Your task to perform on an android device: open app "Yahoo Mail" Image 0: 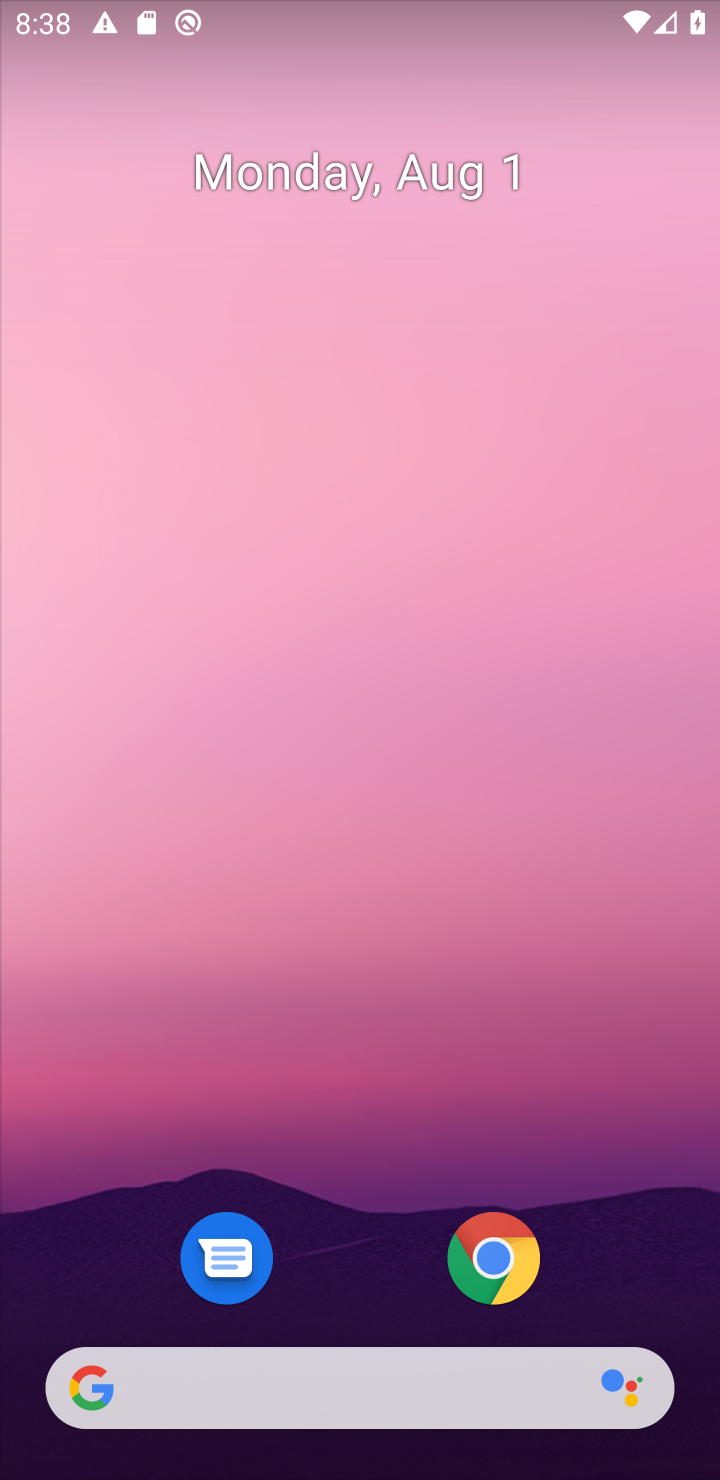
Step 0: drag from (356, 1204) to (533, 57)
Your task to perform on an android device: open app "Yahoo Mail" Image 1: 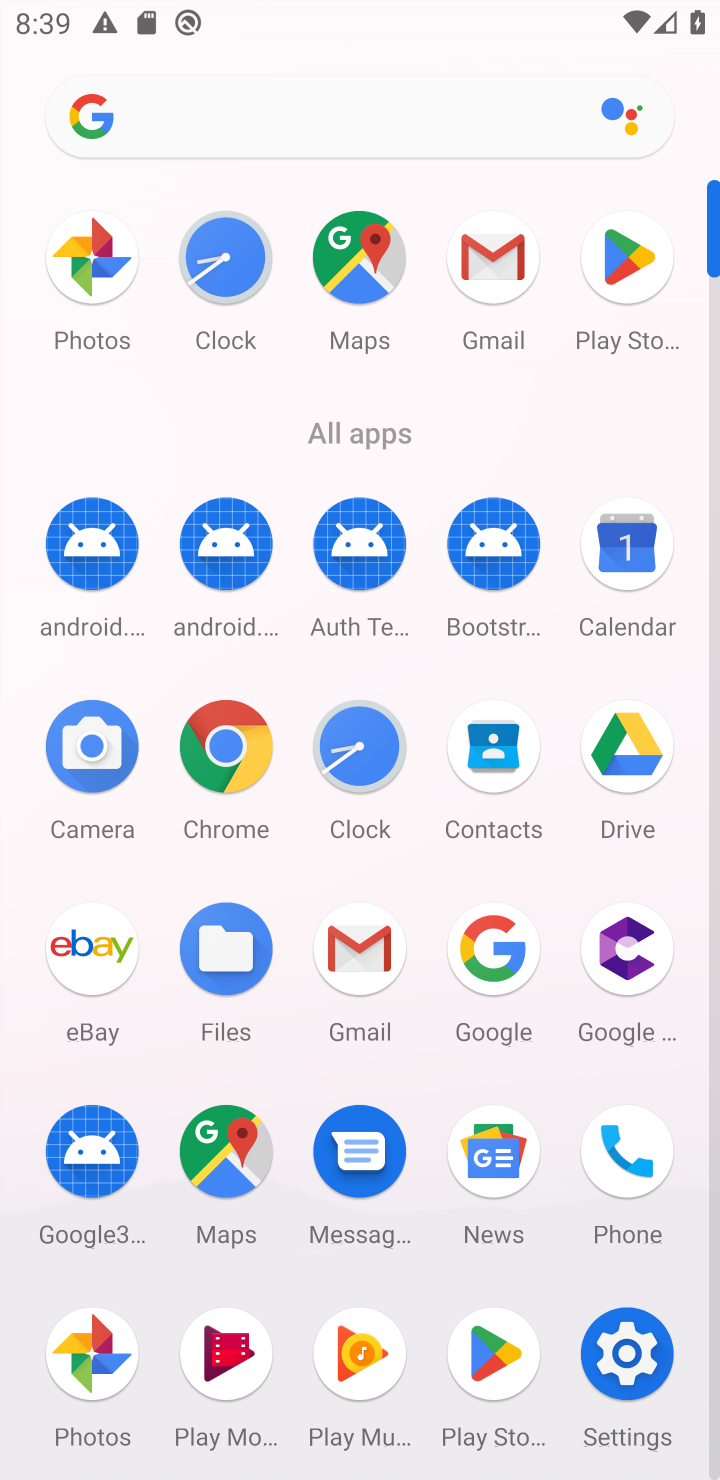
Step 1: click (477, 1348)
Your task to perform on an android device: open app "Yahoo Mail" Image 2: 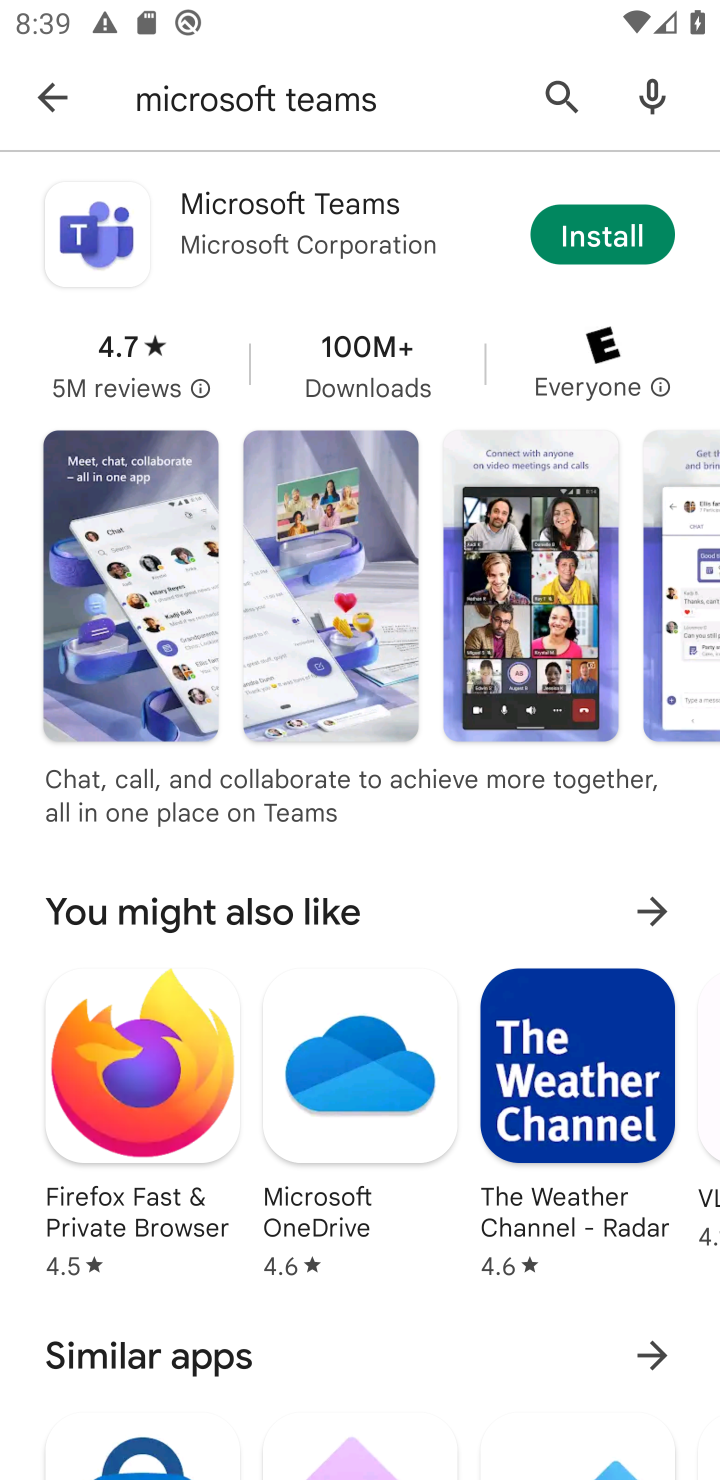
Step 2: click (41, 93)
Your task to perform on an android device: open app "Yahoo Mail" Image 3: 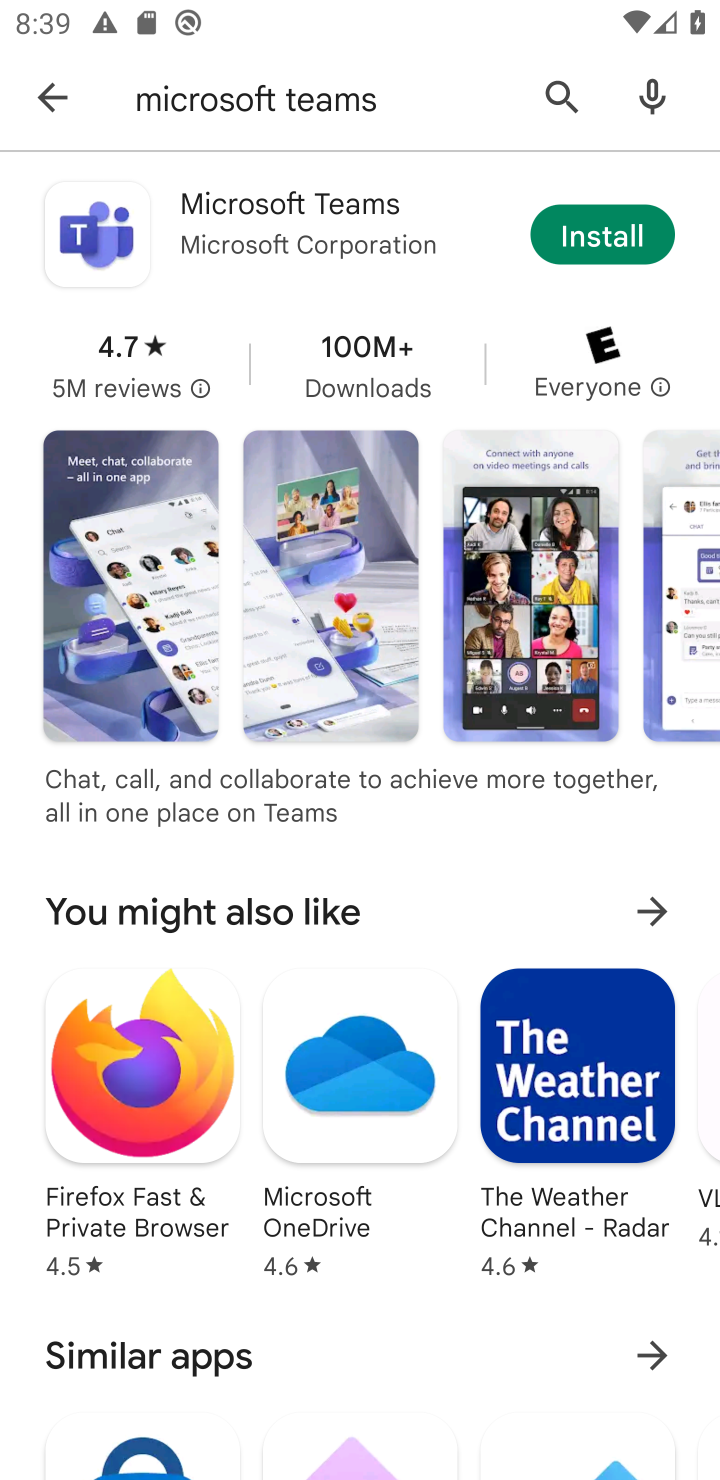
Step 3: click (556, 92)
Your task to perform on an android device: open app "Yahoo Mail" Image 4: 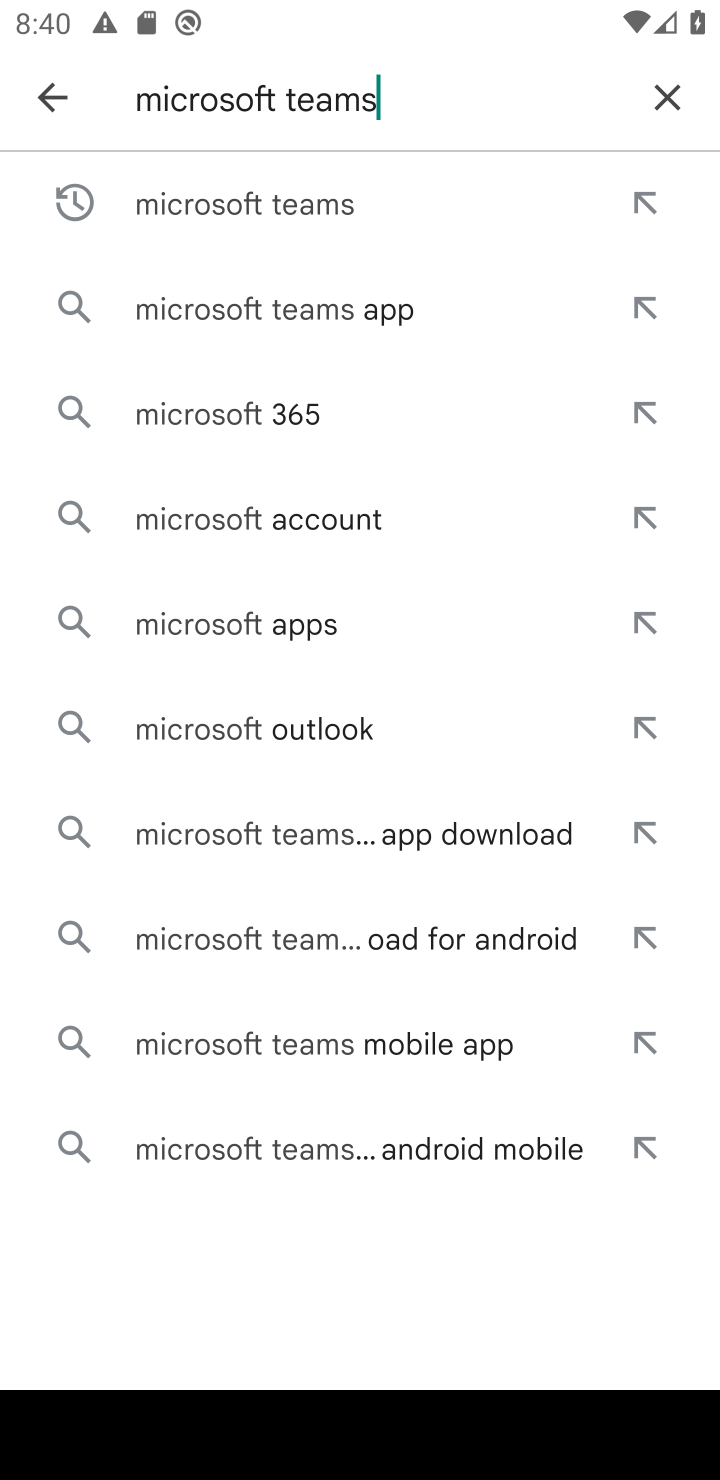
Step 4: click (671, 94)
Your task to perform on an android device: open app "Yahoo Mail" Image 5: 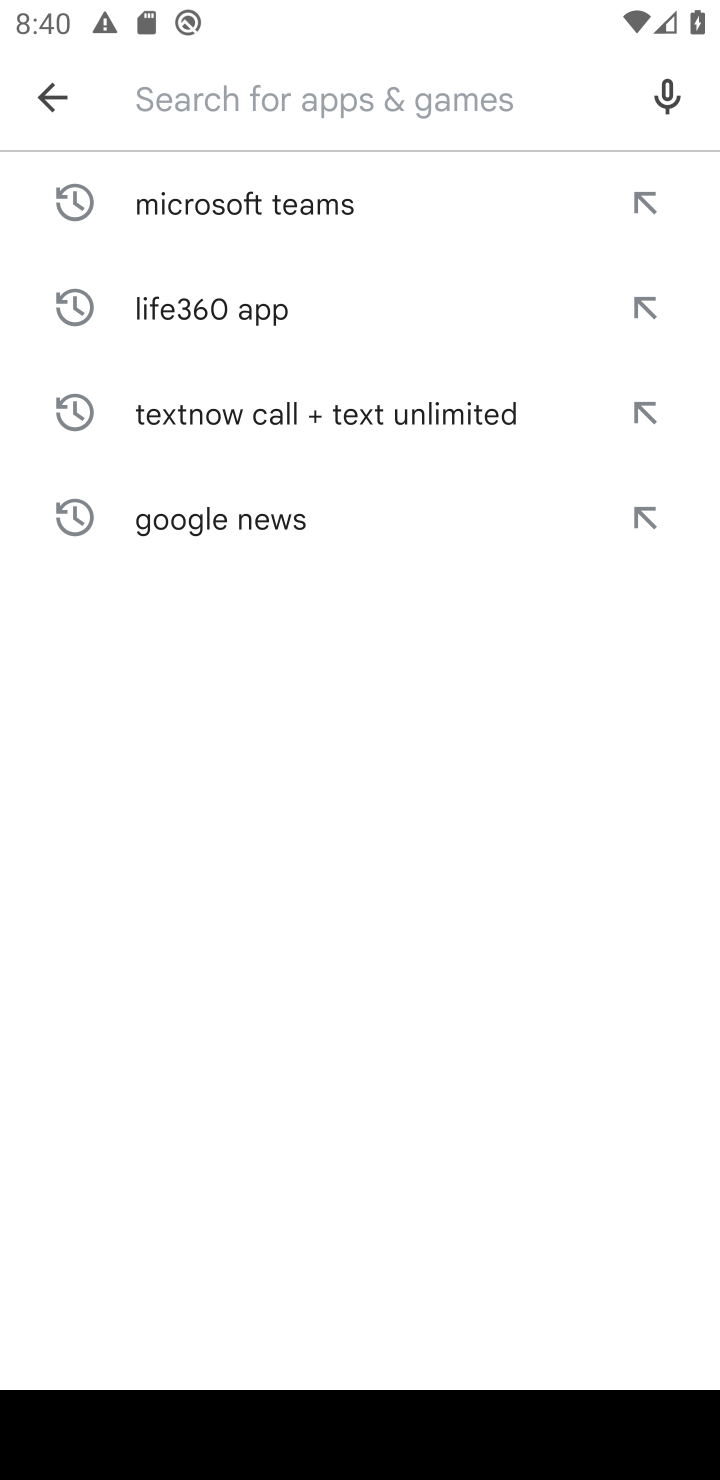
Step 5: click (671, 94)
Your task to perform on an android device: open app "Yahoo Mail" Image 6: 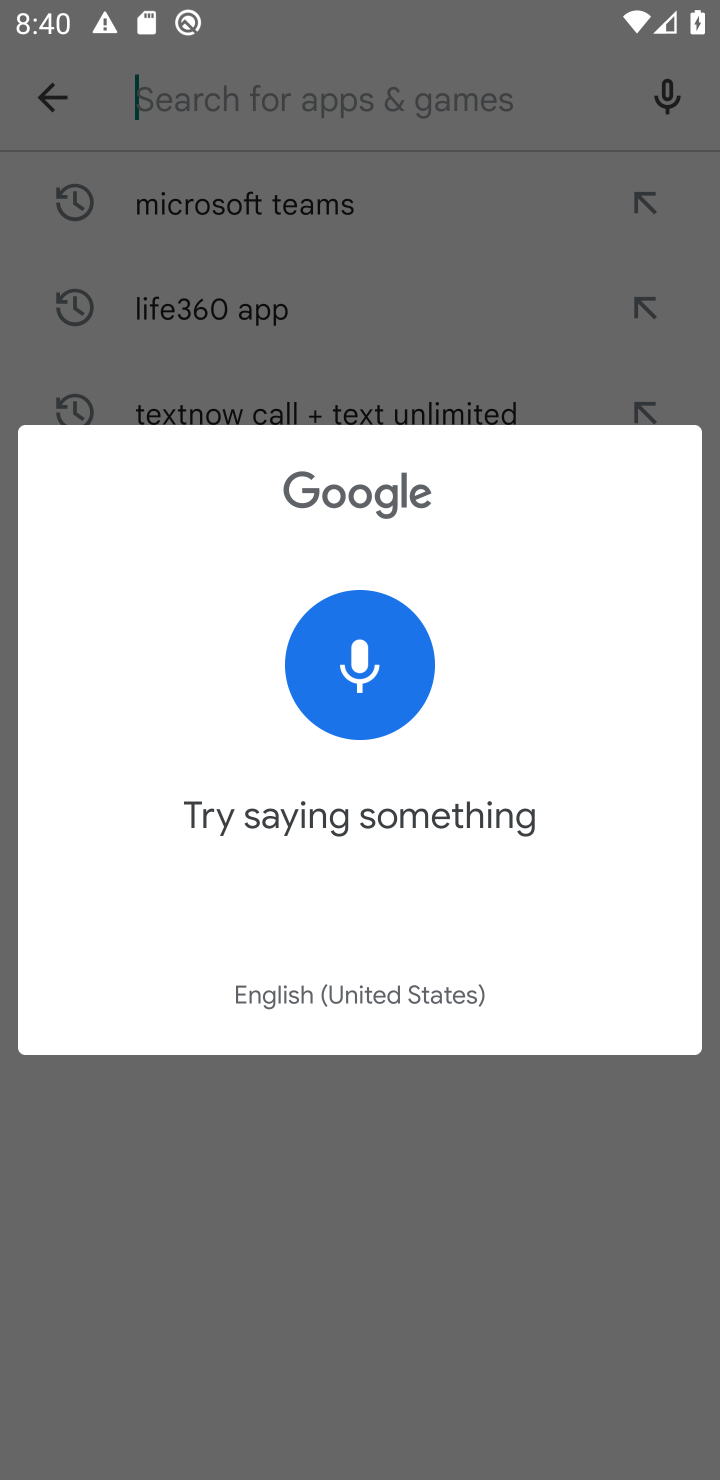
Step 6: type "Yahoo Mail""
Your task to perform on an android device: open app "Yahoo Mail" Image 7: 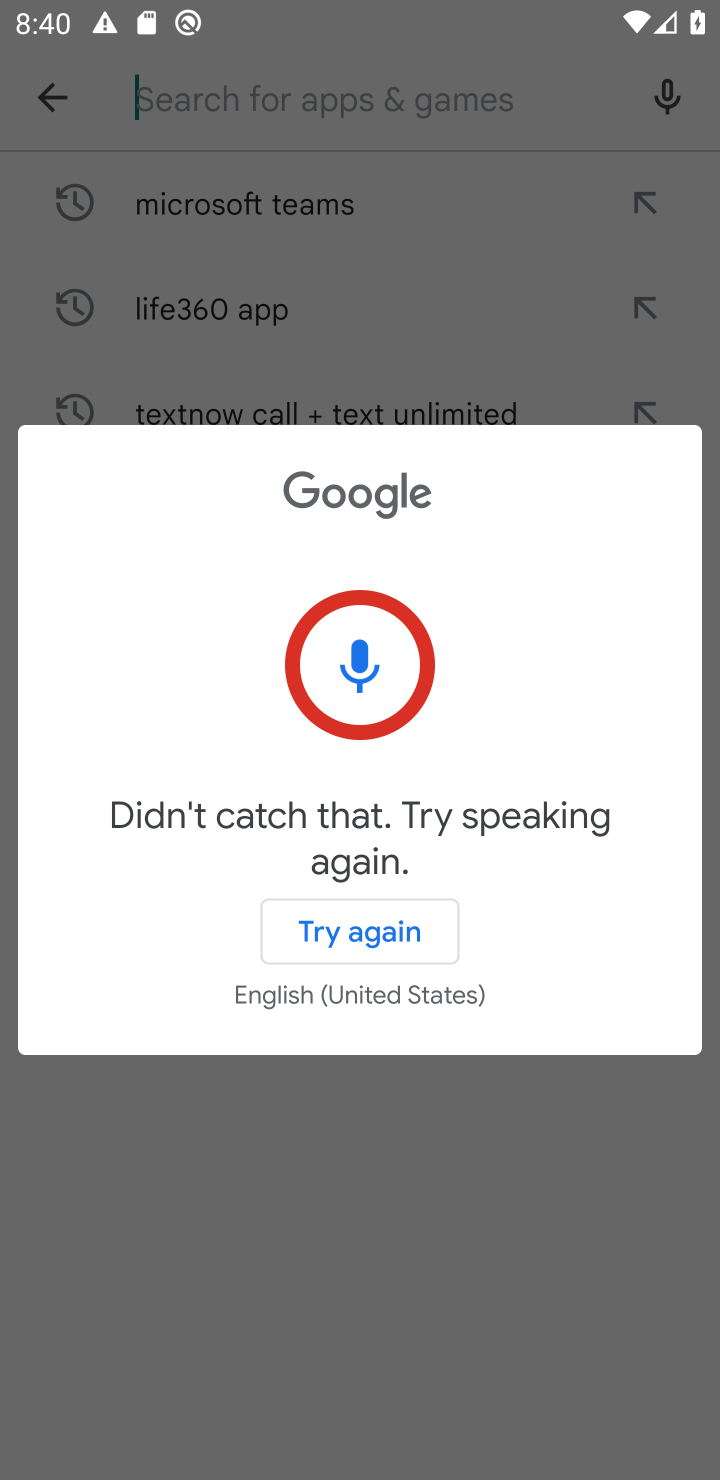
Step 7: click (366, 76)
Your task to perform on an android device: open app "Yahoo Mail" Image 8: 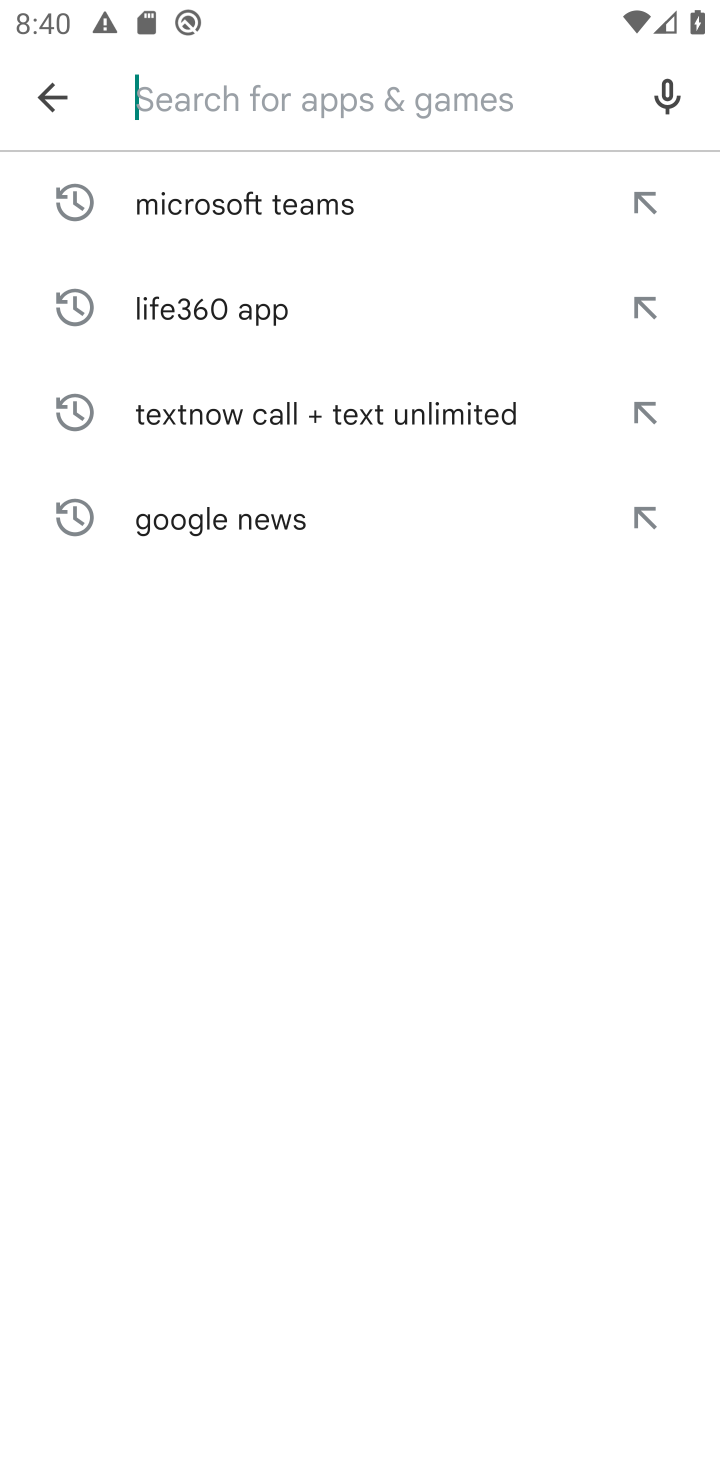
Step 8: type "Yahoo Mail""
Your task to perform on an android device: open app "Yahoo Mail" Image 9: 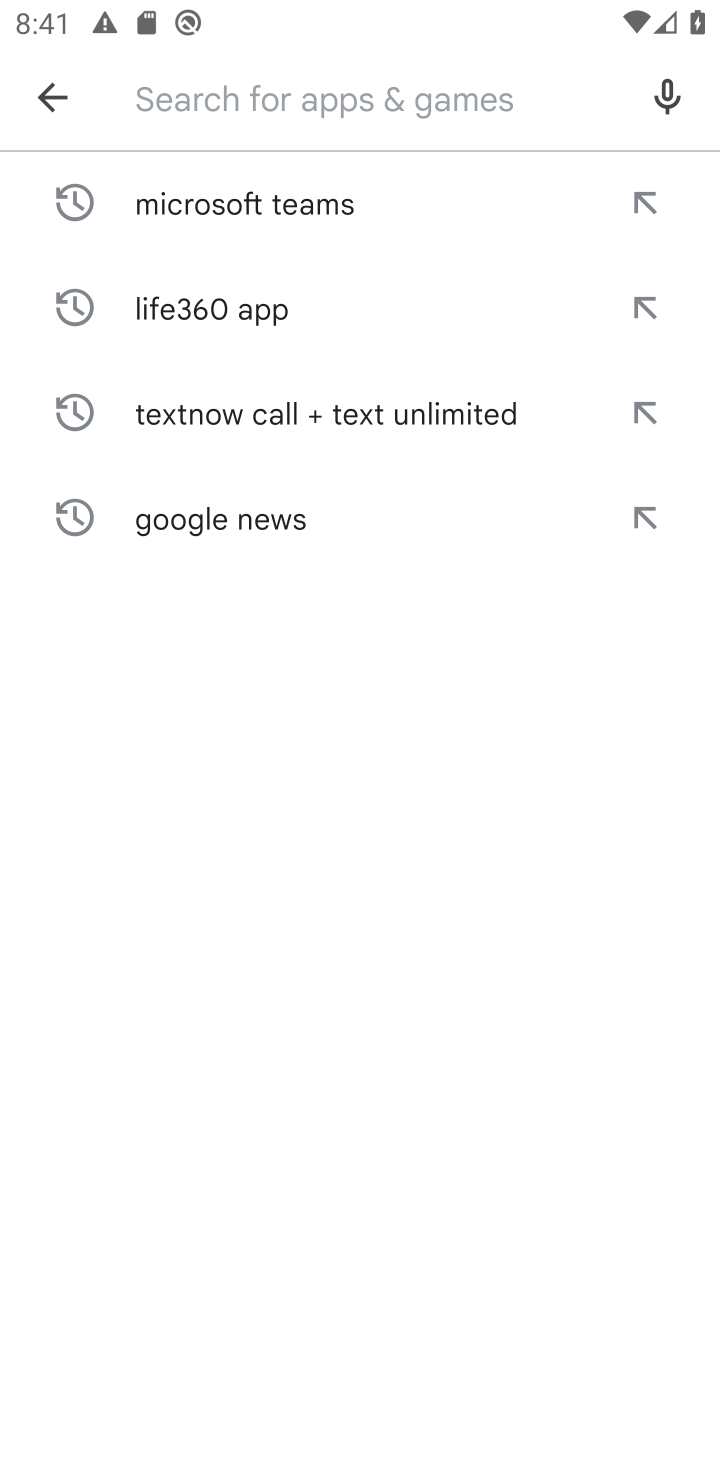
Step 9: type ""Yahoo Mail""
Your task to perform on an android device: open app "Yahoo Mail" Image 10: 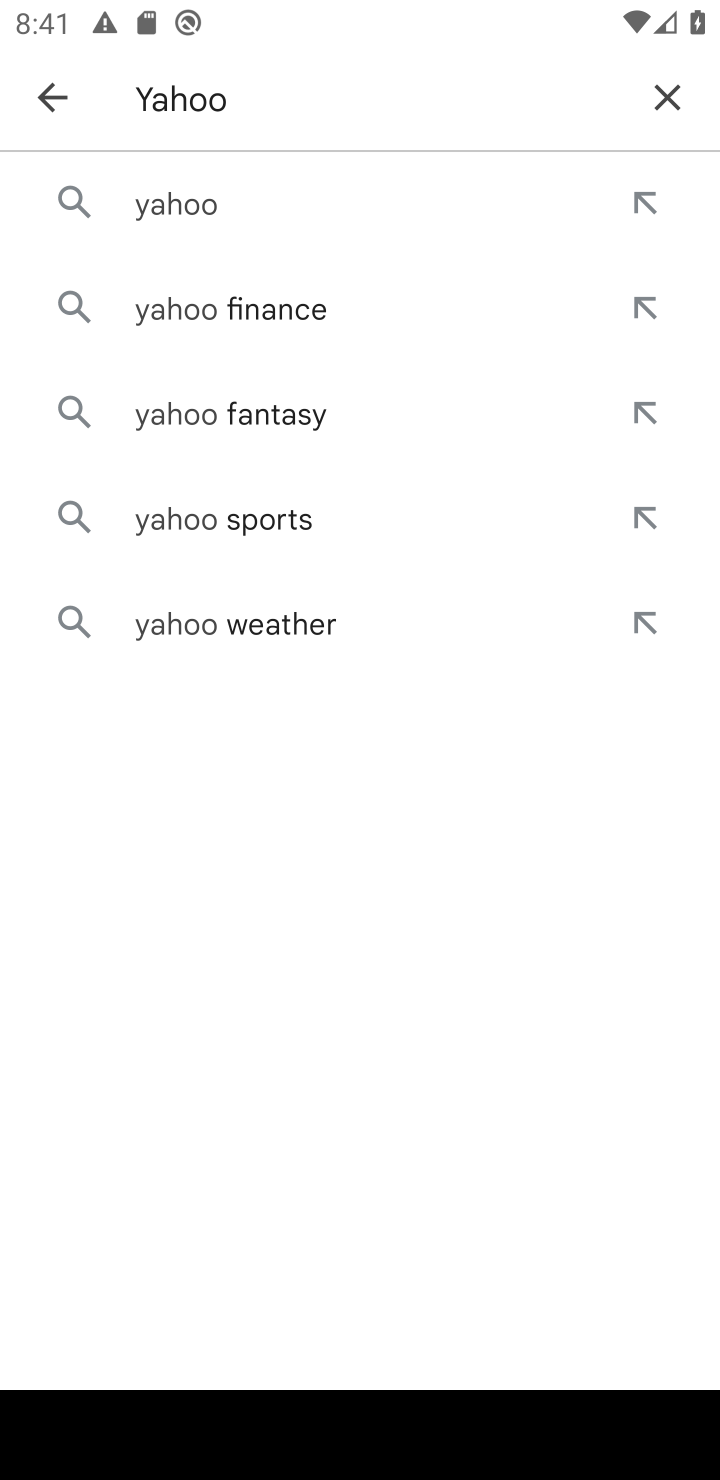
Step 10: click (174, 211)
Your task to perform on an android device: open app "Yahoo Mail" Image 11: 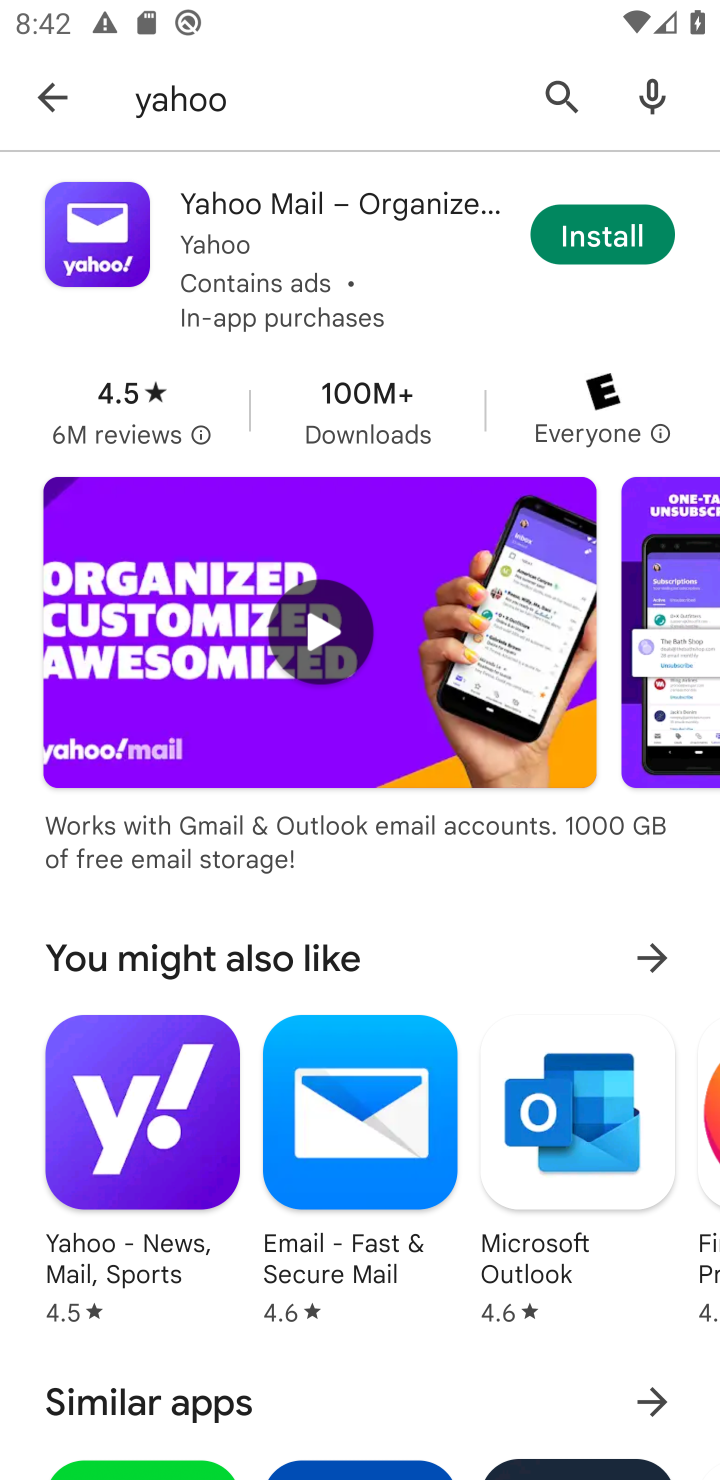
Step 11: task complete